Your task to perform on an android device: What is the recent news? Image 0: 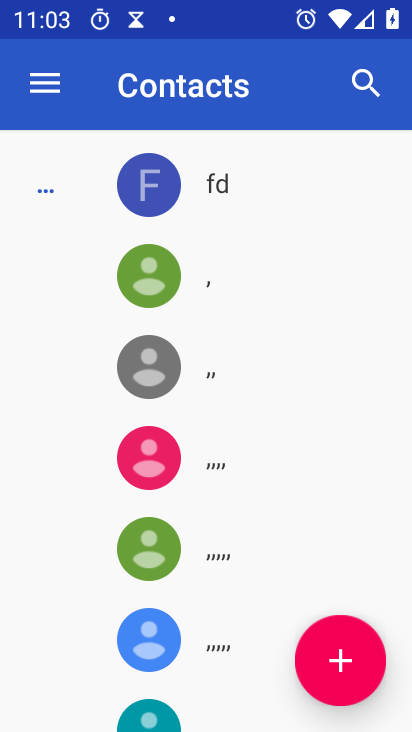
Step 0: press home button
Your task to perform on an android device: What is the recent news? Image 1: 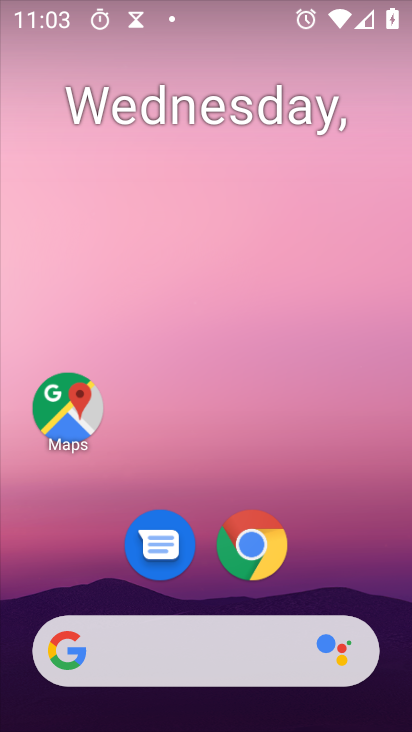
Step 1: click (75, 646)
Your task to perform on an android device: What is the recent news? Image 2: 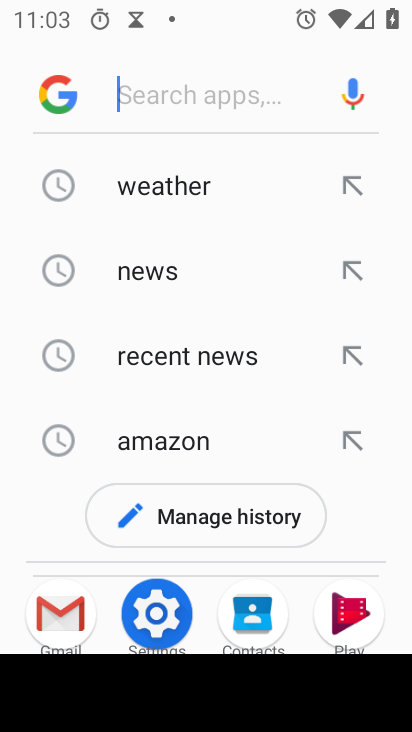
Step 2: click (162, 271)
Your task to perform on an android device: What is the recent news? Image 3: 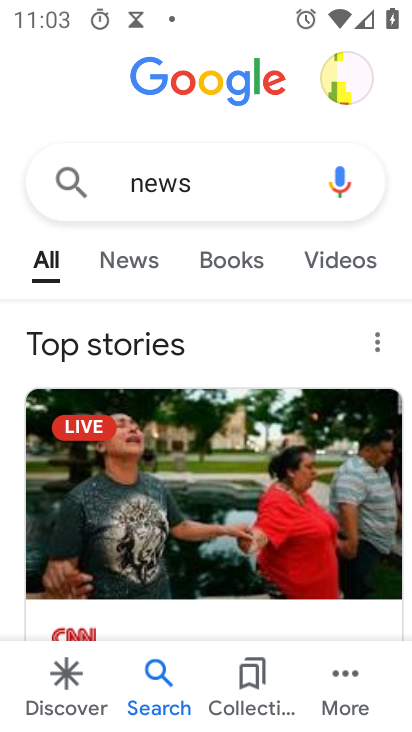
Step 3: click (132, 257)
Your task to perform on an android device: What is the recent news? Image 4: 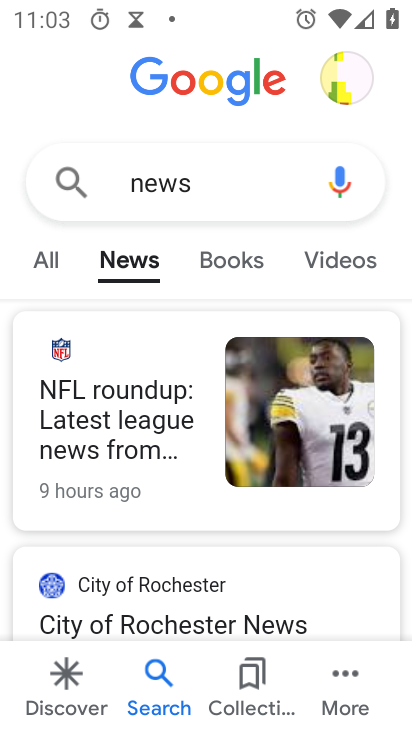
Step 4: task complete